Your task to perform on an android device: Open privacy settings Image 0: 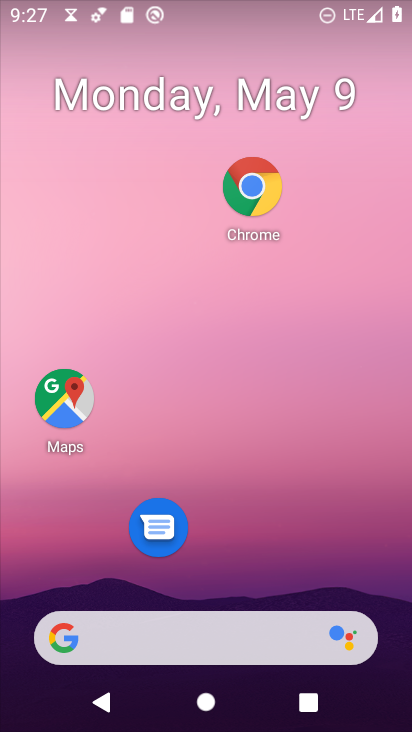
Step 0: drag from (217, 595) to (259, 76)
Your task to perform on an android device: Open privacy settings Image 1: 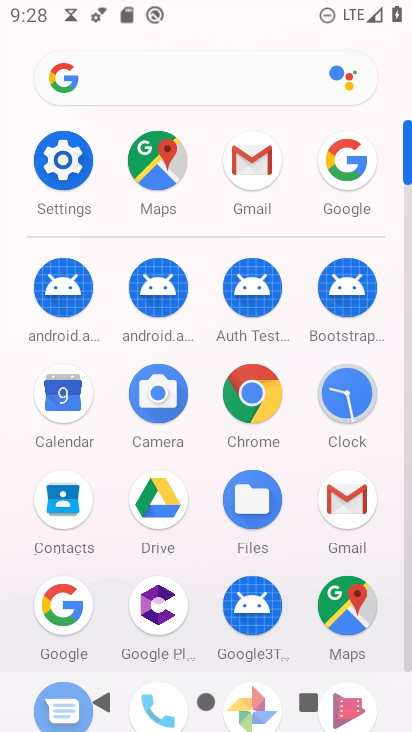
Step 1: click (57, 158)
Your task to perform on an android device: Open privacy settings Image 2: 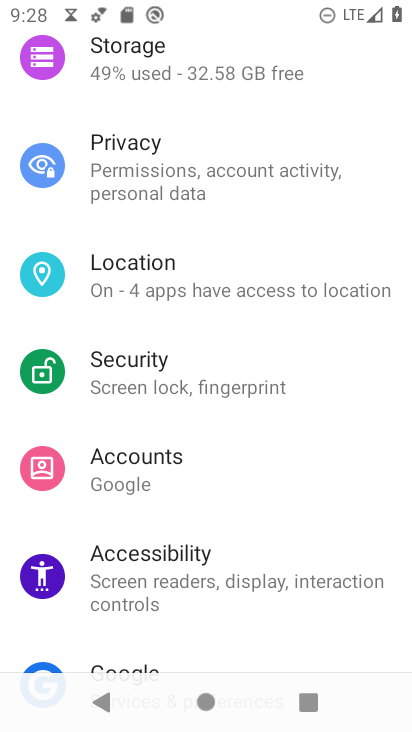
Step 2: click (180, 165)
Your task to perform on an android device: Open privacy settings Image 3: 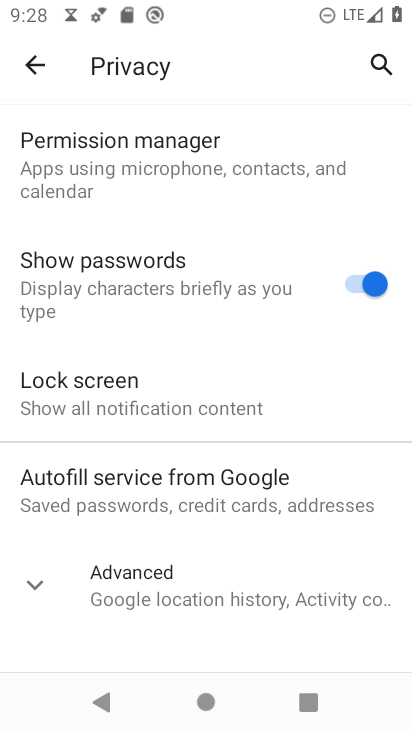
Step 3: click (34, 578)
Your task to perform on an android device: Open privacy settings Image 4: 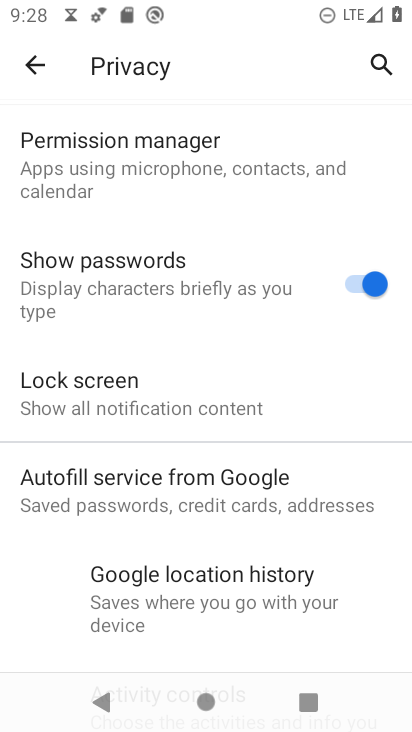
Step 4: task complete